Your task to perform on an android device: Go to Reddit.com Image 0: 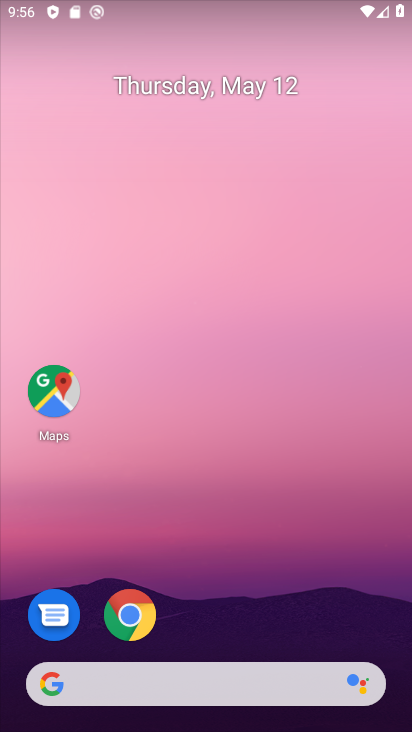
Step 0: click (131, 613)
Your task to perform on an android device: Go to Reddit.com Image 1: 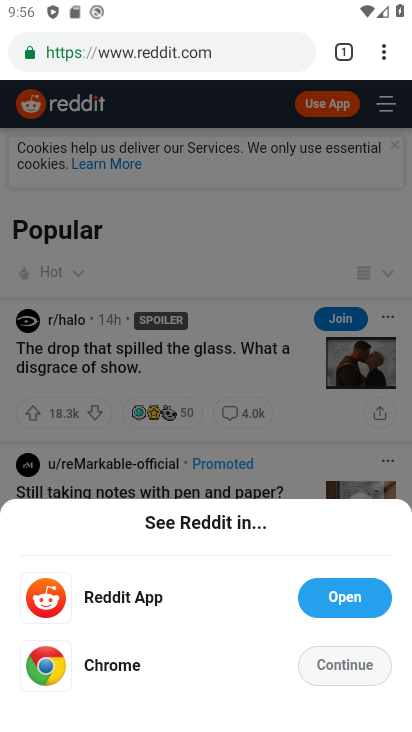
Step 1: click (131, 614)
Your task to perform on an android device: Go to Reddit.com Image 2: 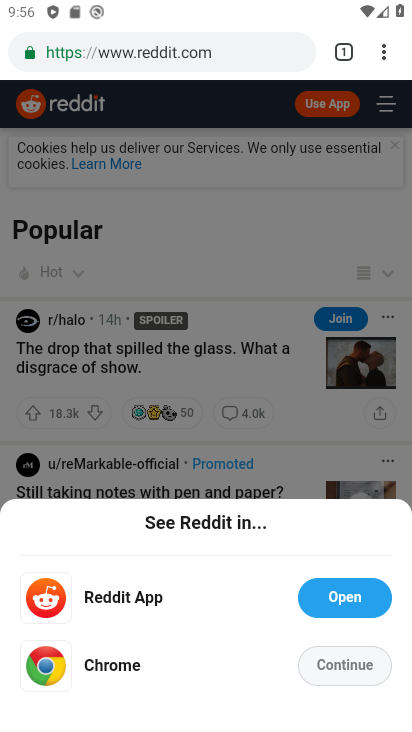
Step 2: task complete